Your task to perform on an android device: Empty the shopping cart on walmart. Add "razer thresher" to the cart on walmart, then select checkout. Image 0: 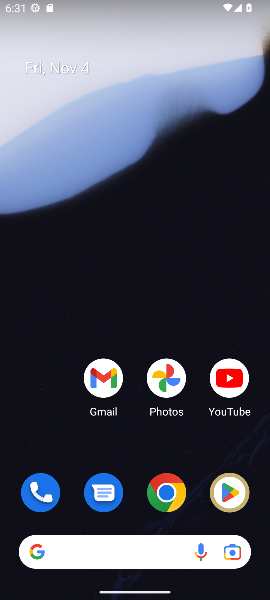
Step 0: drag from (136, 454) to (153, 87)
Your task to perform on an android device: Empty the shopping cart on walmart. Add "razer thresher" to the cart on walmart, then select checkout. Image 1: 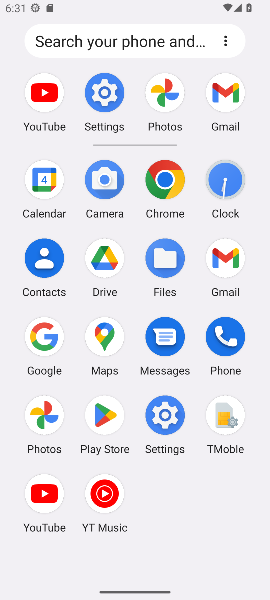
Step 1: click (164, 187)
Your task to perform on an android device: Empty the shopping cart on walmart. Add "razer thresher" to the cart on walmart, then select checkout. Image 2: 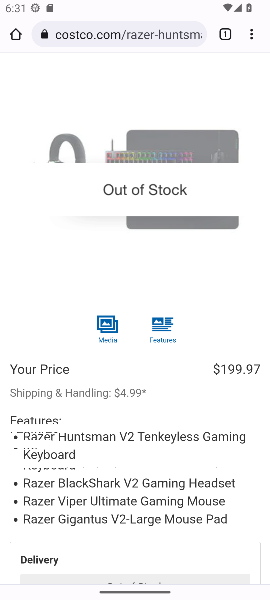
Step 2: click (149, 31)
Your task to perform on an android device: Empty the shopping cart on walmart. Add "razer thresher" to the cart on walmart, then select checkout. Image 3: 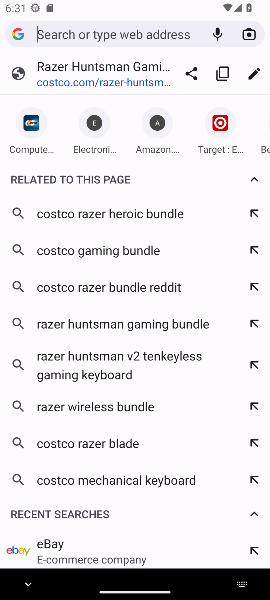
Step 3: type "walmart.com"
Your task to perform on an android device: Empty the shopping cart on walmart. Add "razer thresher" to the cart on walmart, then select checkout. Image 4: 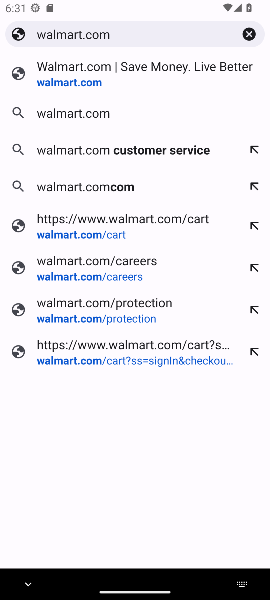
Step 4: press enter
Your task to perform on an android device: Empty the shopping cart on walmart. Add "razer thresher" to the cart on walmart, then select checkout. Image 5: 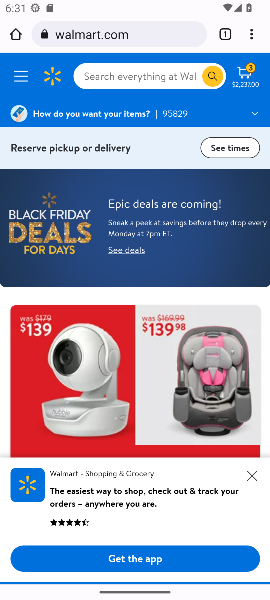
Step 5: click (253, 75)
Your task to perform on an android device: Empty the shopping cart on walmart. Add "razer thresher" to the cart on walmart, then select checkout. Image 6: 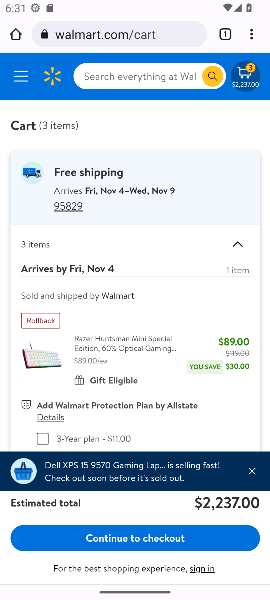
Step 6: drag from (202, 429) to (203, 222)
Your task to perform on an android device: Empty the shopping cart on walmart. Add "razer thresher" to the cart on walmart, then select checkout. Image 7: 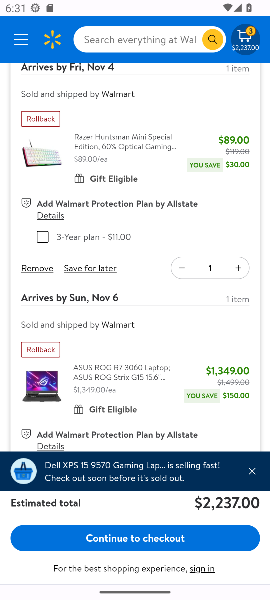
Step 7: click (39, 265)
Your task to perform on an android device: Empty the shopping cart on walmart. Add "razer thresher" to the cart on walmart, then select checkout. Image 8: 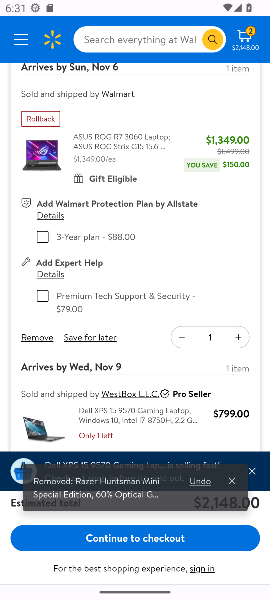
Step 8: click (43, 339)
Your task to perform on an android device: Empty the shopping cart on walmart. Add "razer thresher" to the cart on walmart, then select checkout. Image 9: 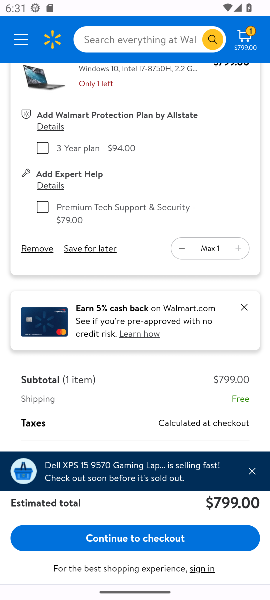
Step 9: click (39, 248)
Your task to perform on an android device: Empty the shopping cart on walmart. Add "razer thresher" to the cart on walmart, then select checkout. Image 10: 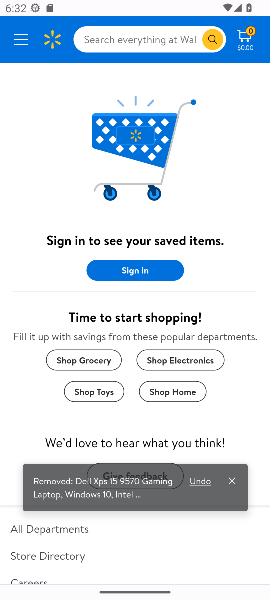
Step 10: click (153, 48)
Your task to perform on an android device: Empty the shopping cart on walmart. Add "razer thresher" to the cart on walmart, then select checkout. Image 11: 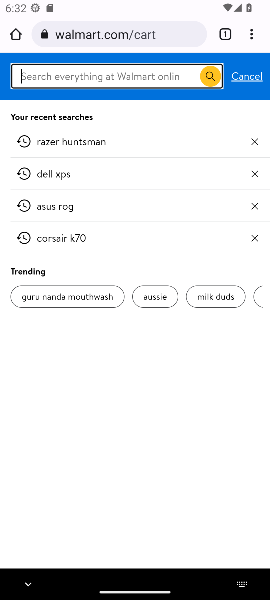
Step 11: type "razer thresher"
Your task to perform on an android device: Empty the shopping cart on walmart. Add "razer thresher" to the cart on walmart, then select checkout. Image 12: 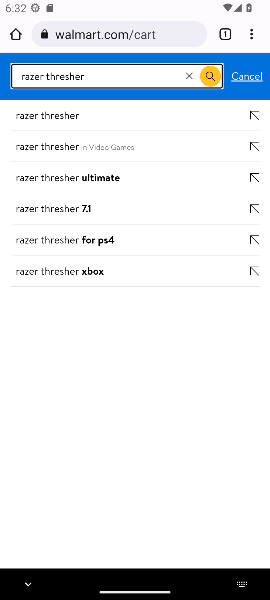
Step 12: press enter
Your task to perform on an android device: Empty the shopping cart on walmart. Add "razer thresher" to the cart on walmart, then select checkout. Image 13: 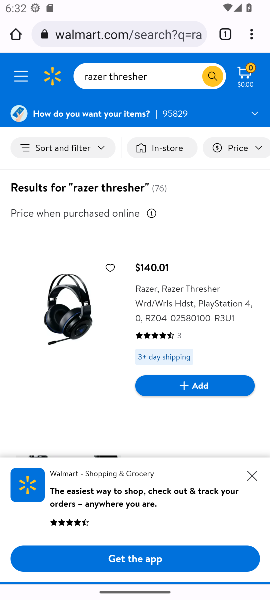
Step 13: click (195, 391)
Your task to perform on an android device: Empty the shopping cart on walmart. Add "razer thresher" to the cart on walmart, then select checkout. Image 14: 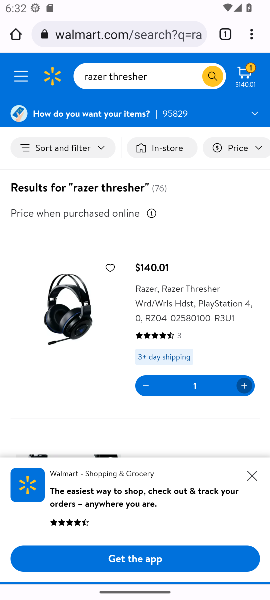
Step 14: click (246, 81)
Your task to perform on an android device: Empty the shopping cart on walmart. Add "razer thresher" to the cart on walmart, then select checkout. Image 15: 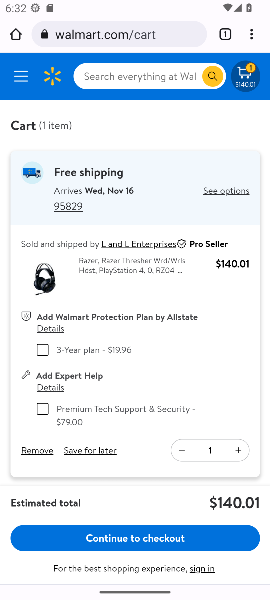
Step 15: click (154, 534)
Your task to perform on an android device: Empty the shopping cart on walmart. Add "razer thresher" to the cart on walmart, then select checkout. Image 16: 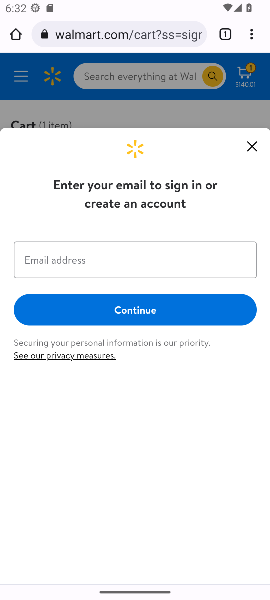
Step 16: task complete